Your task to perform on an android device: turn on airplane mode Image 0: 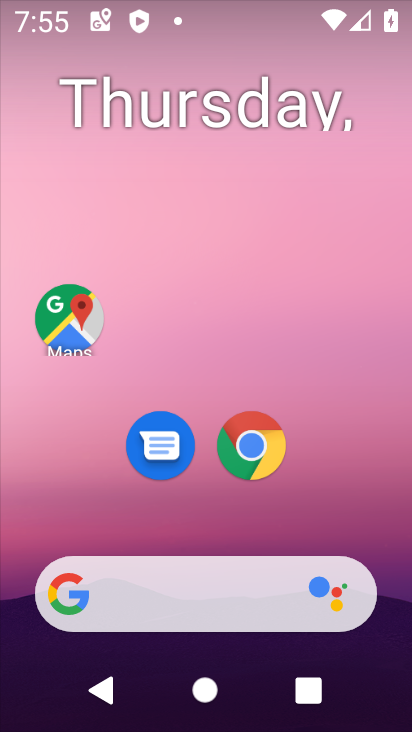
Step 0: drag from (237, 7) to (251, 511)
Your task to perform on an android device: turn on airplane mode Image 1: 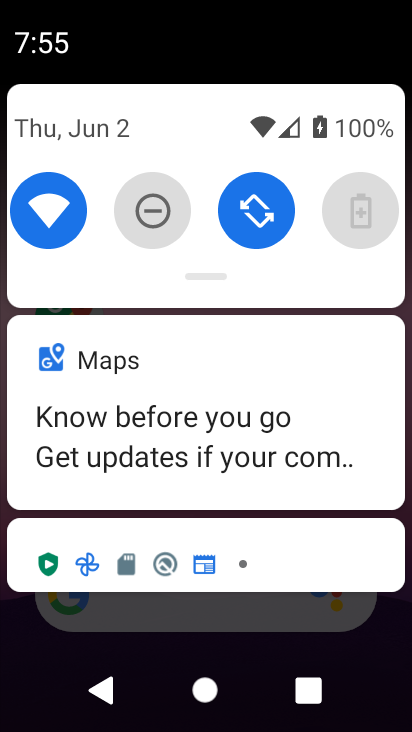
Step 1: drag from (207, 257) to (232, 611)
Your task to perform on an android device: turn on airplane mode Image 2: 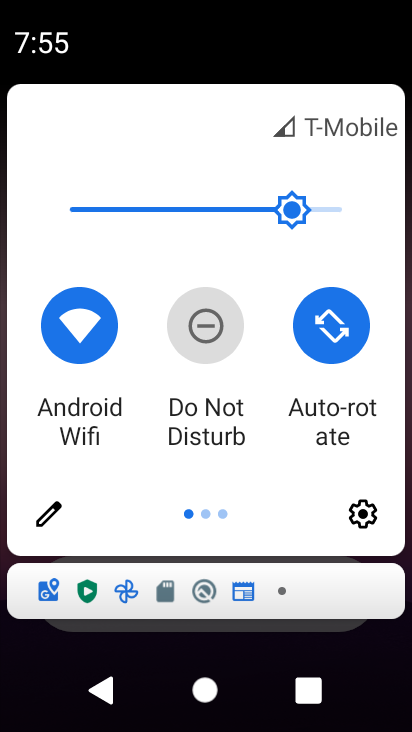
Step 2: drag from (371, 409) to (52, 361)
Your task to perform on an android device: turn on airplane mode Image 3: 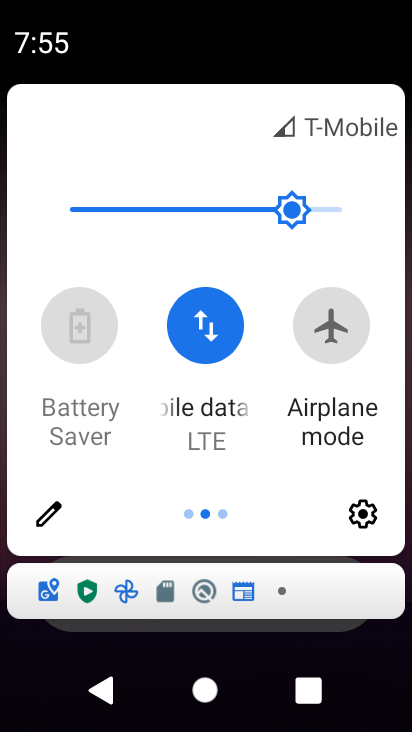
Step 3: click (336, 318)
Your task to perform on an android device: turn on airplane mode Image 4: 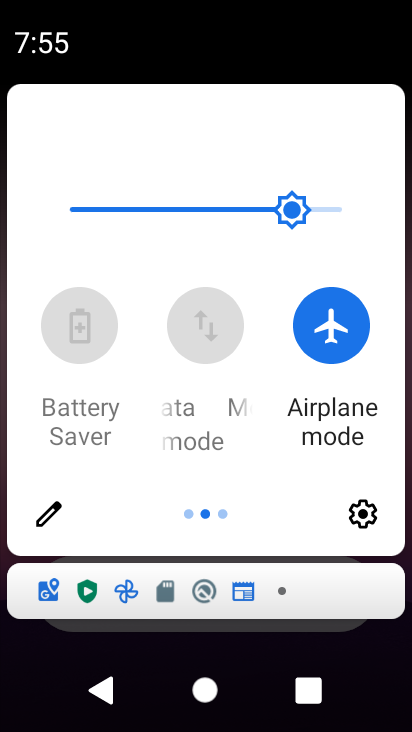
Step 4: task complete